Your task to perform on an android device: turn off notifications settings in the gmail app Image 0: 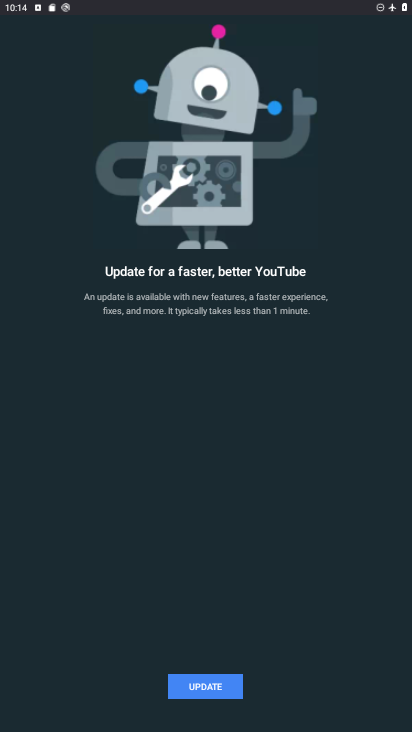
Step 0: press home button
Your task to perform on an android device: turn off notifications settings in the gmail app Image 1: 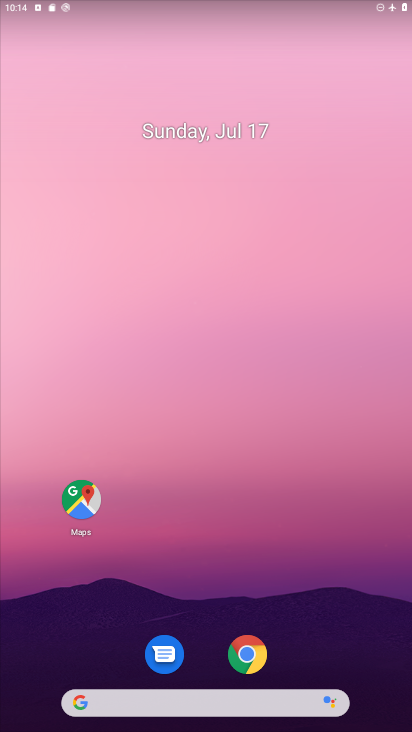
Step 1: drag from (190, 606) to (201, 16)
Your task to perform on an android device: turn off notifications settings in the gmail app Image 2: 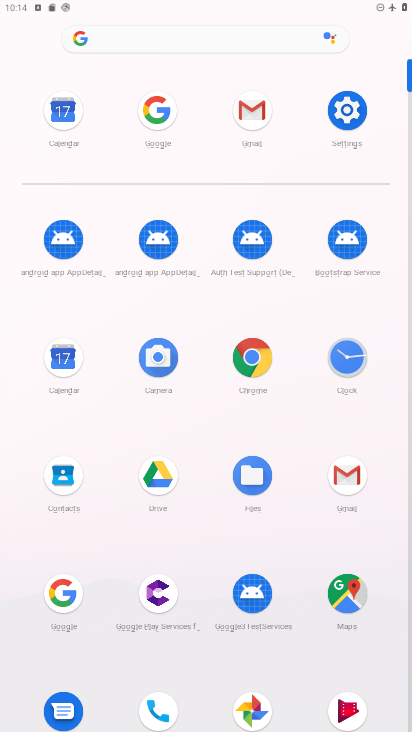
Step 2: click (345, 497)
Your task to perform on an android device: turn off notifications settings in the gmail app Image 3: 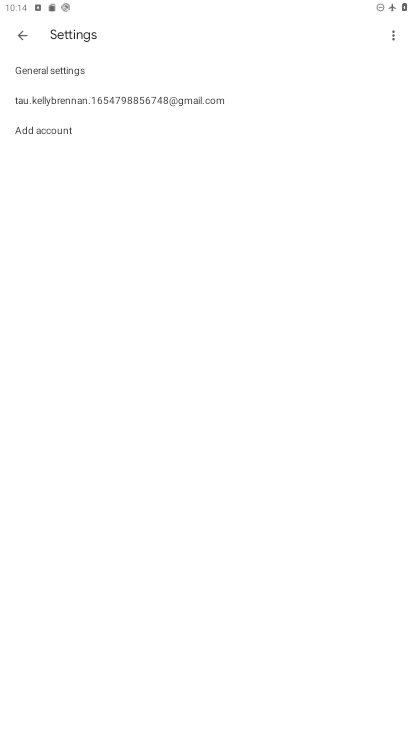
Step 3: click (66, 90)
Your task to perform on an android device: turn off notifications settings in the gmail app Image 4: 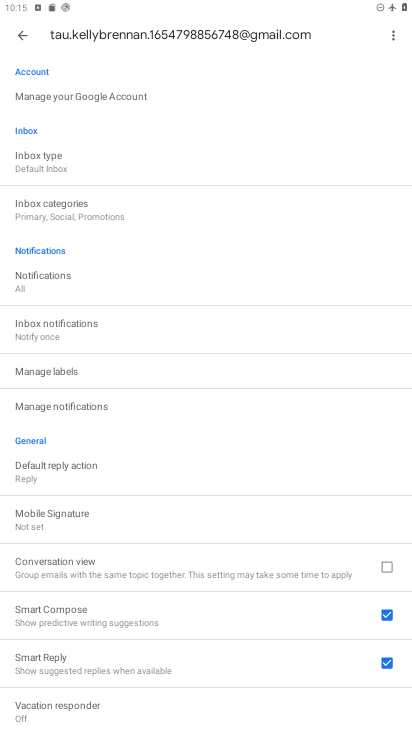
Step 4: click (107, 419)
Your task to perform on an android device: turn off notifications settings in the gmail app Image 5: 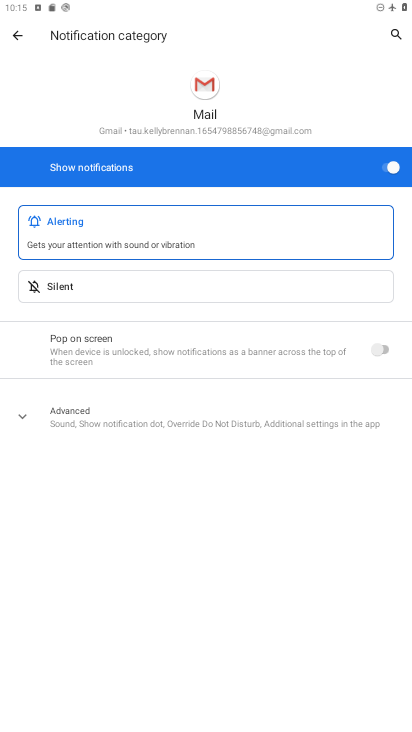
Step 5: click (384, 165)
Your task to perform on an android device: turn off notifications settings in the gmail app Image 6: 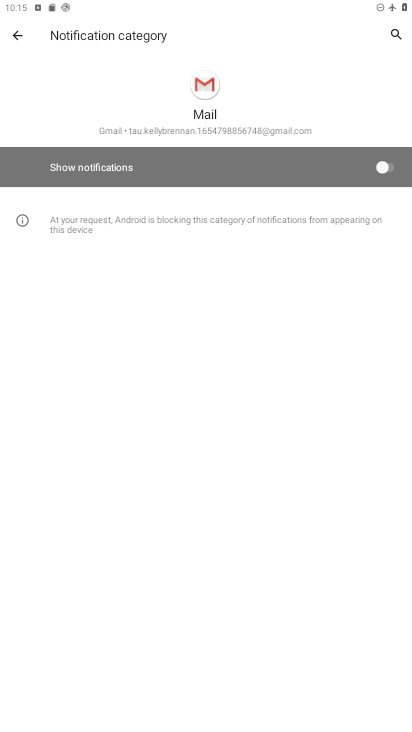
Step 6: task complete